Your task to perform on an android device: Go to Google Image 0: 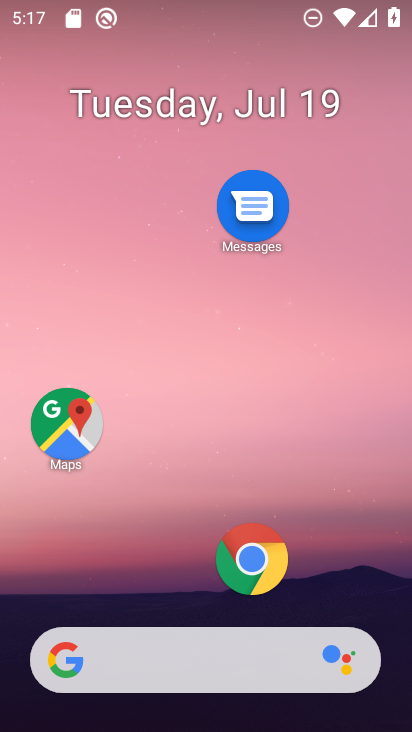
Step 0: drag from (75, 548) to (171, 26)
Your task to perform on an android device: Go to Google Image 1: 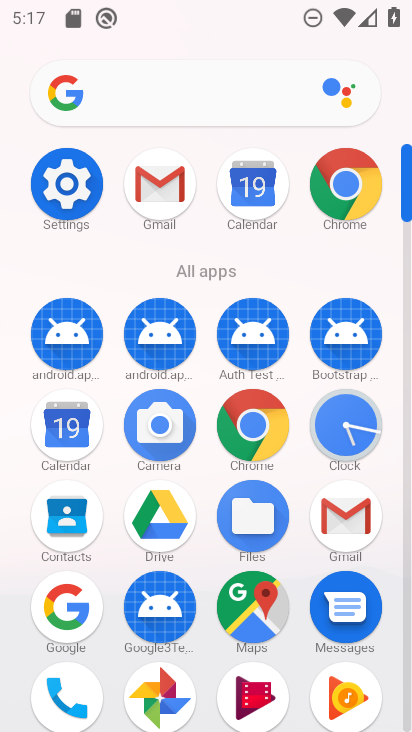
Step 1: click (62, 603)
Your task to perform on an android device: Go to Google Image 2: 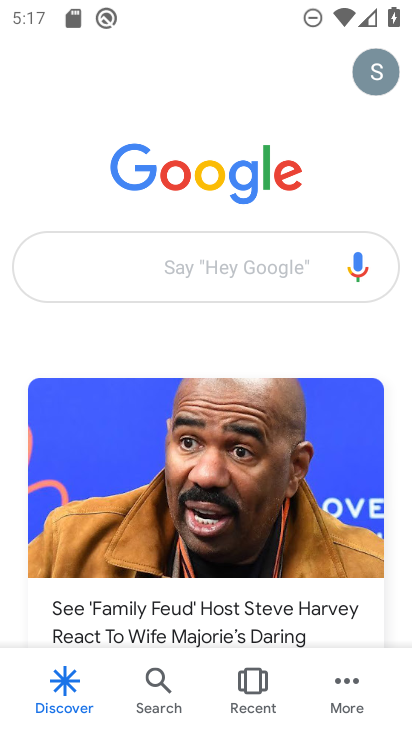
Step 2: task complete